Your task to perform on an android device: Open maps Image 0: 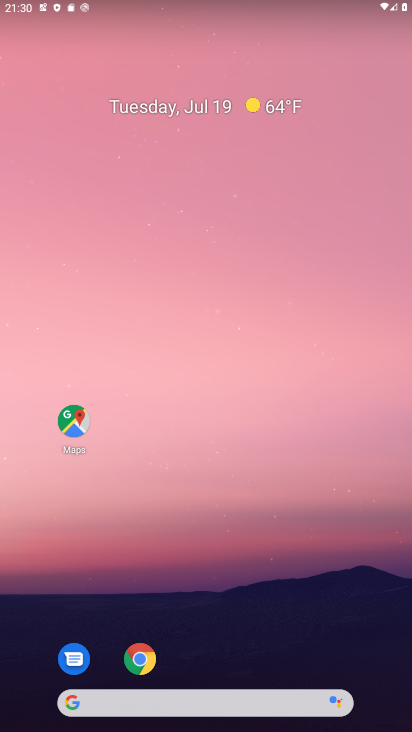
Step 0: click (69, 440)
Your task to perform on an android device: Open maps Image 1: 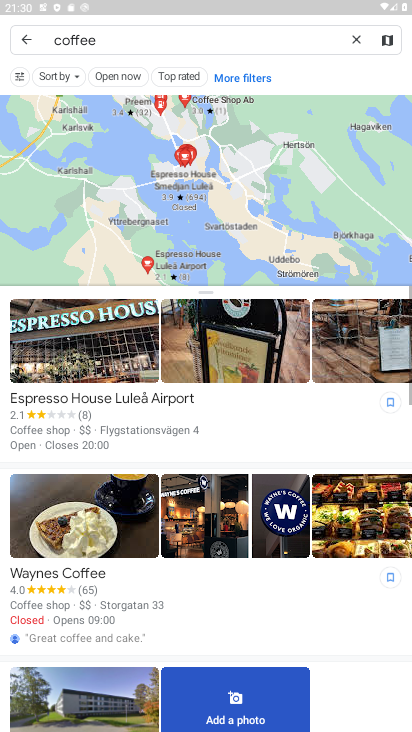
Step 1: task complete